Your task to perform on an android device: Go to Amazon Image 0: 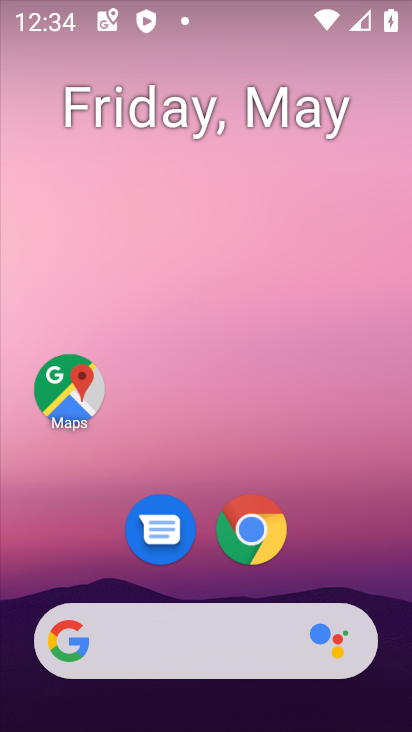
Step 0: drag from (357, 547) to (276, 140)
Your task to perform on an android device: Go to Amazon Image 1: 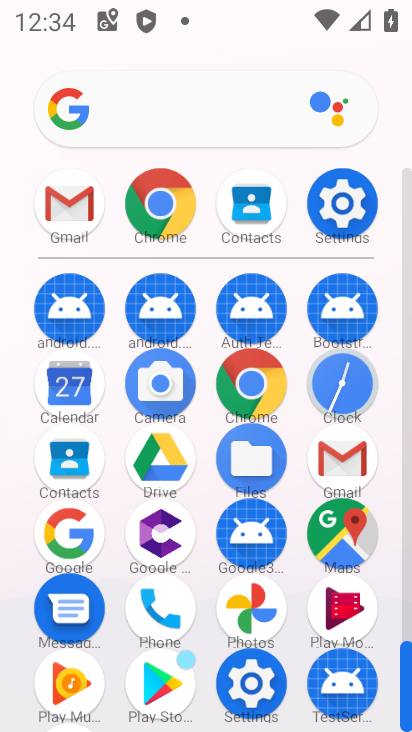
Step 1: click (158, 210)
Your task to perform on an android device: Go to Amazon Image 2: 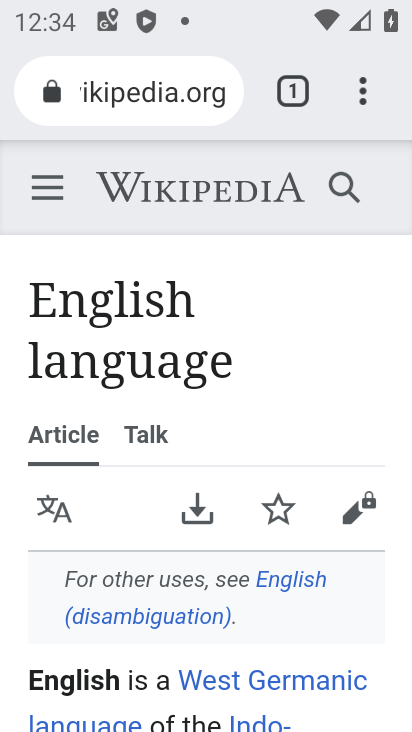
Step 2: click (303, 94)
Your task to perform on an android device: Go to Amazon Image 3: 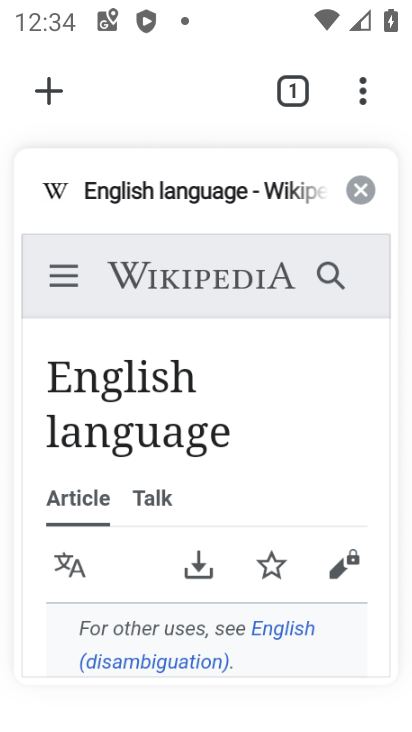
Step 3: click (49, 89)
Your task to perform on an android device: Go to Amazon Image 4: 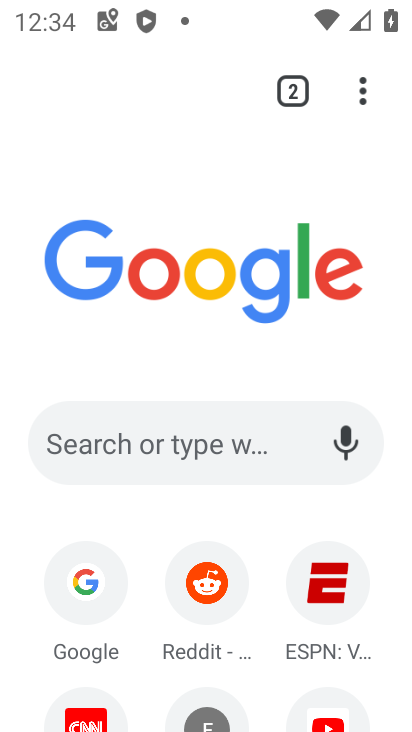
Step 4: click (211, 446)
Your task to perform on an android device: Go to Amazon Image 5: 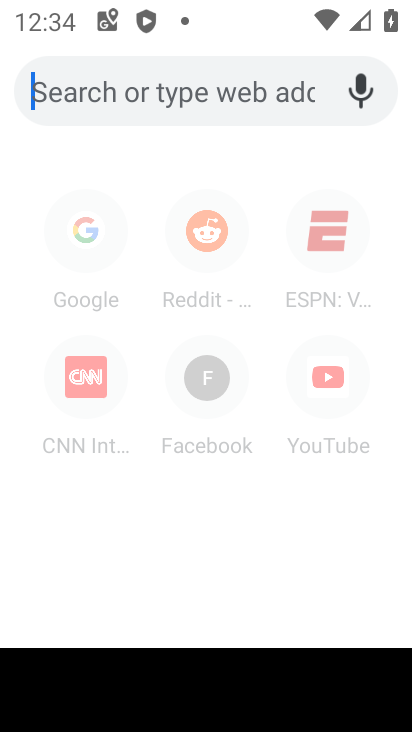
Step 5: type "amazon"
Your task to perform on an android device: Go to Amazon Image 6: 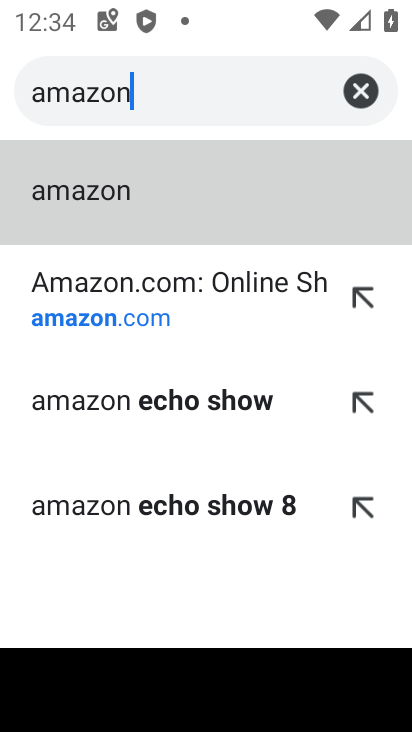
Step 6: click (109, 275)
Your task to perform on an android device: Go to Amazon Image 7: 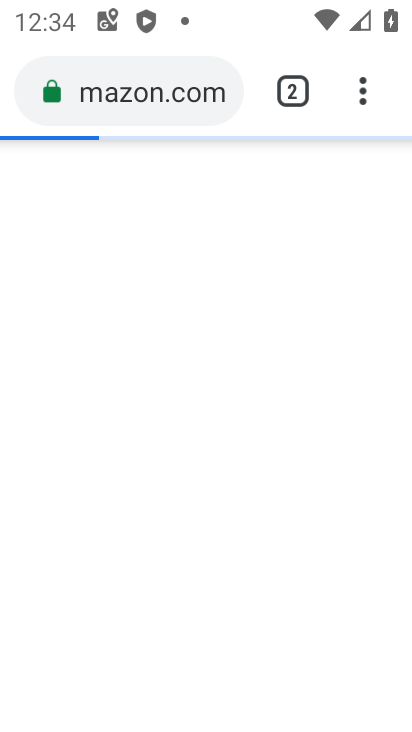
Step 7: task complete